Your task to perform on an android device: change alarm snooze length Image 0: 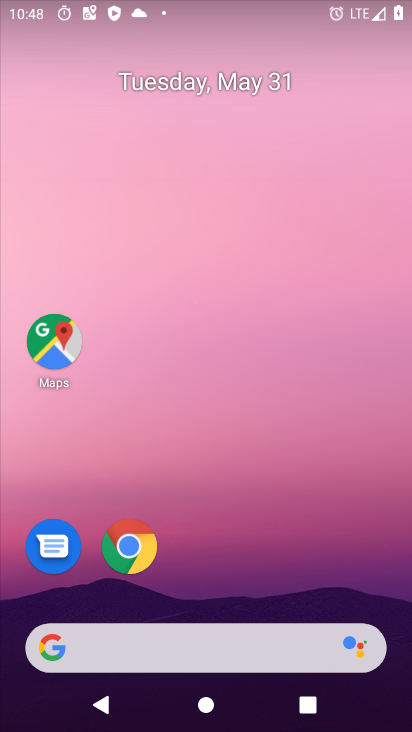
Step 0: drag from (272, 572) to (336, 115)
Your task to perform on an android device: change alarm snooze length Image 1: 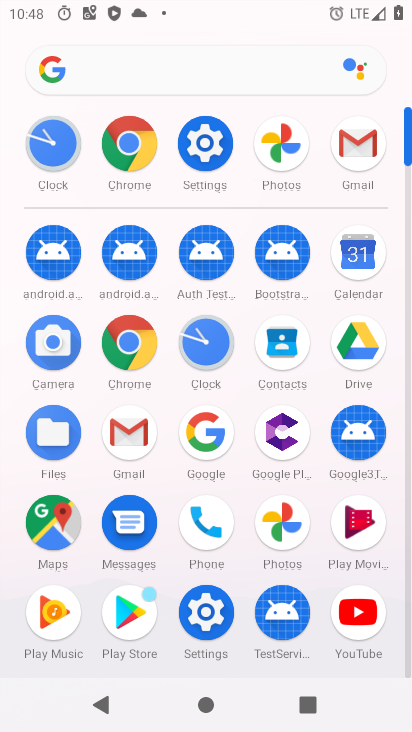
Step 1: click (181, 330)
Your task to perform on an android device: change alarm snooze length Image 2: 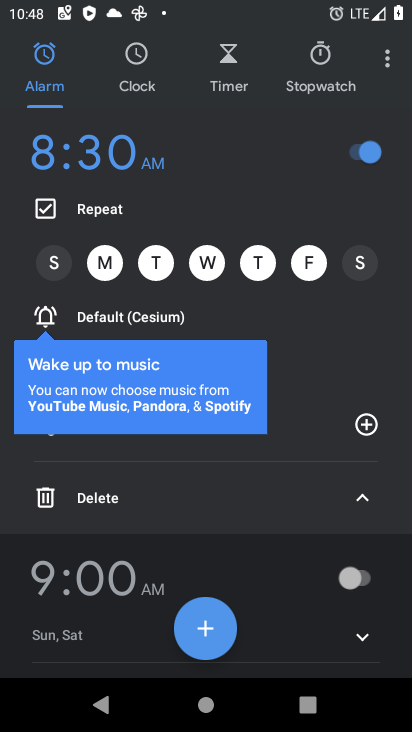
Step 2: click (395, 65)
Your task to perform on an android device: change alarm snooze length Image 3: 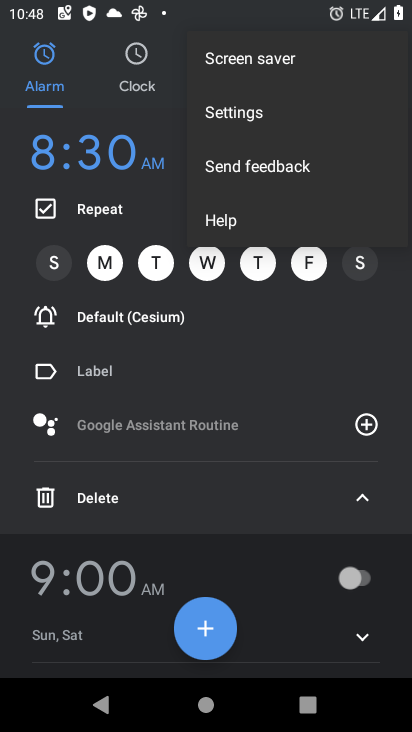
Step 3: click (306, 117)
Your task to perform on an android device: change alarm snooze length Image 4: 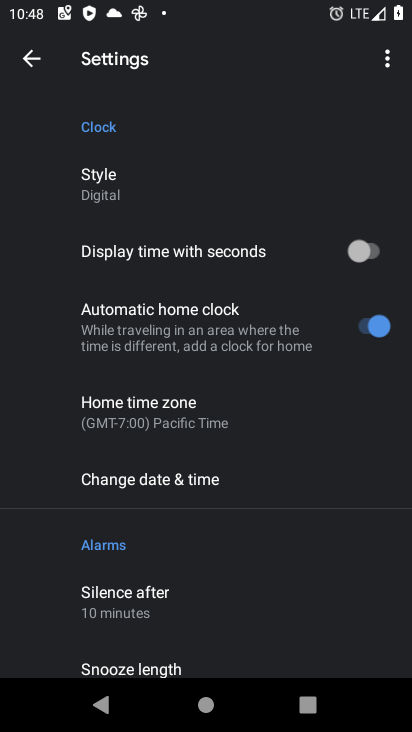
Step 4: drag from (228, 591) to (259, 219)
Your task to perform on an android device: change alarm snooze length Image 5: 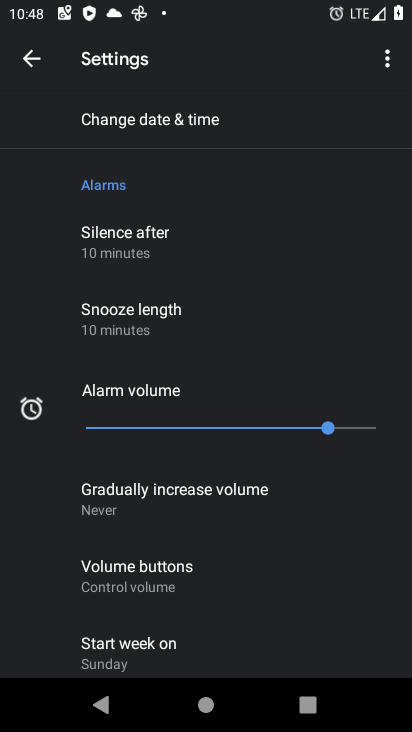
Step 5: click (249, 314)
Your task to perform on an android device: change alarm snooze length Image 6: 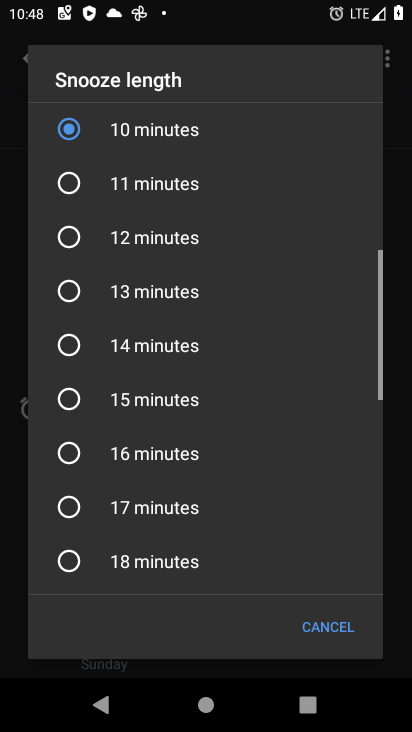
Step 6: click (242, 258)
Your task to perform on an android device: change alarm snooze length Image 7: 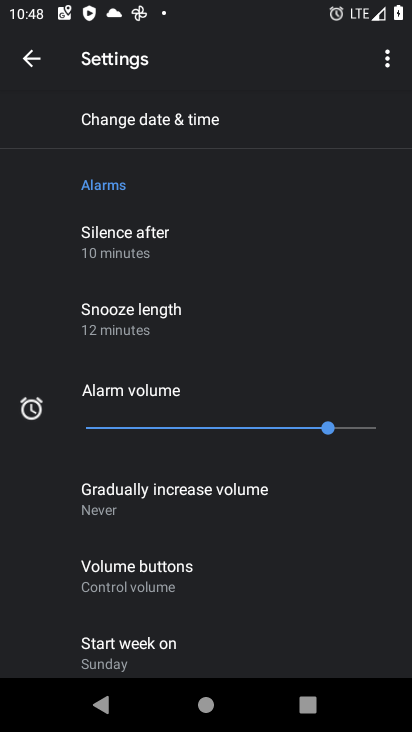
Step 7: task complete